Your task to perform on an android device: change timer sound Image 0: 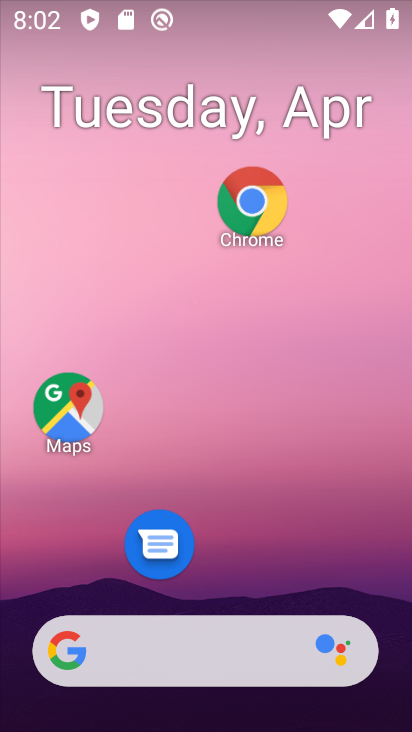
Step 0: drag from (227, 524) to (320, 84)
Your task to perform on an android device: change timer sound Image 1: 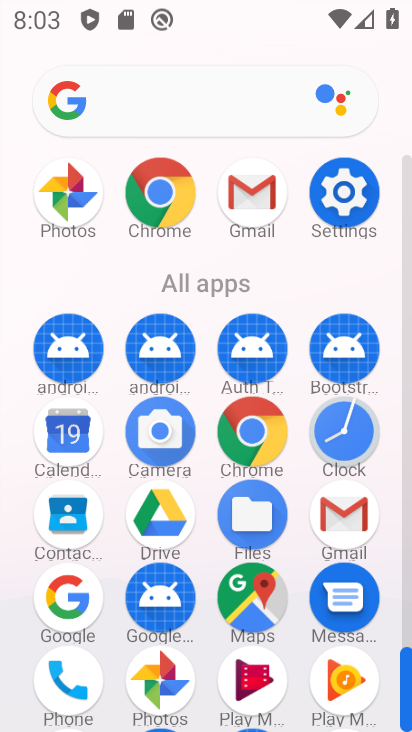
Step 1: click (354, 450)
Your task to perform on an android device: change timer sound Image 2: 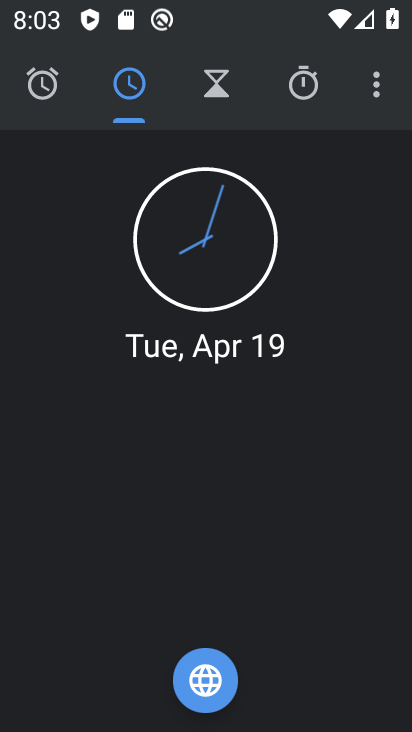
Step 2: click (381, 82)
Your task to perform on an android device: change timer sound Image 3: 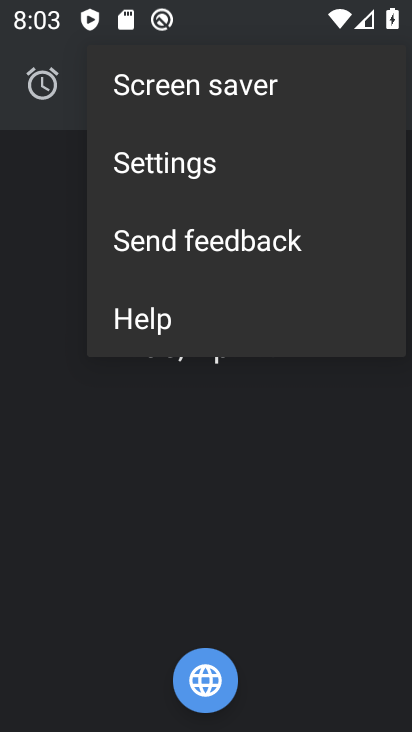
Step 3: click (182, 168)
Your task to perform on an android device: change timer sound Image 4: 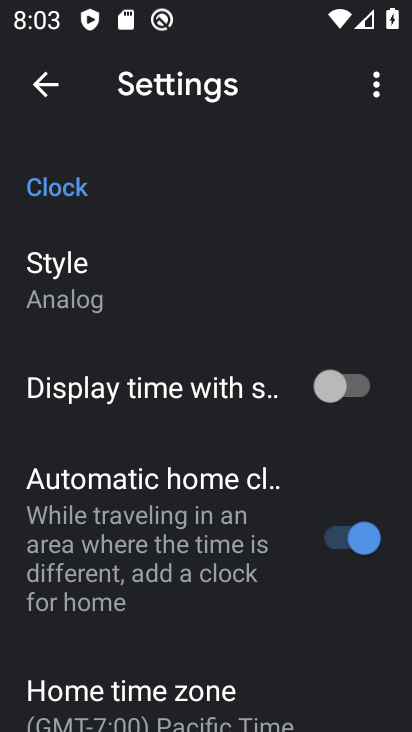
Step 4: drag from (165, 623) to (301, 103)
Your task to perform on an android device: change timer sound Image 5: 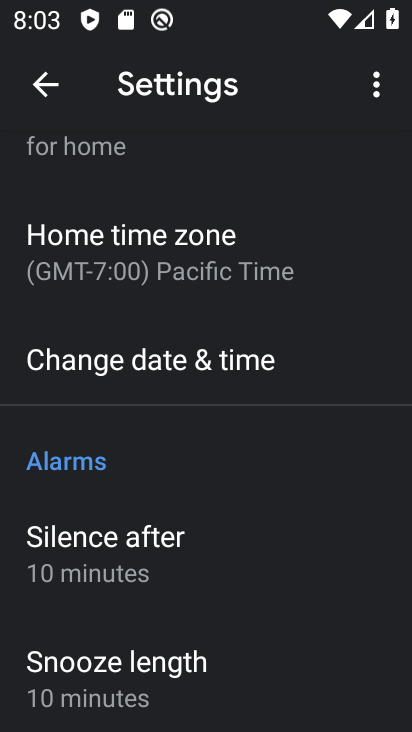
Step 5: drag from (147, 645) to (277, 183)
Your task to perform on an android device: change timer sound Image 6: 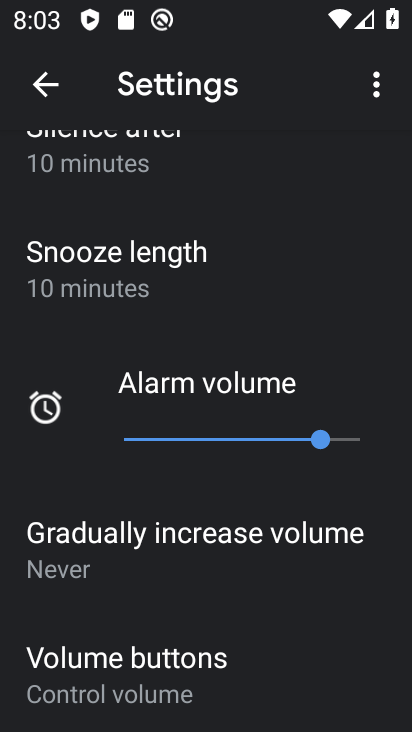
Step 6: drag from (196, 626) to (296, 299)
Your task to perform on an android device: change timer sound Image 7: 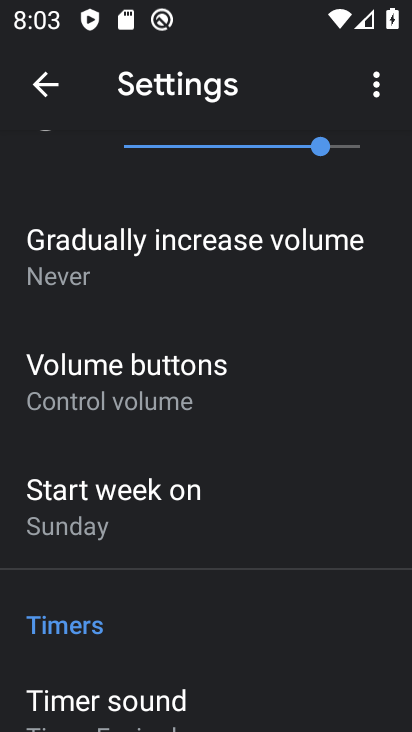
Step 7: drag from (225, 597) to (303, 279)
Your task to perform on an android device: change timer sound Image 8: 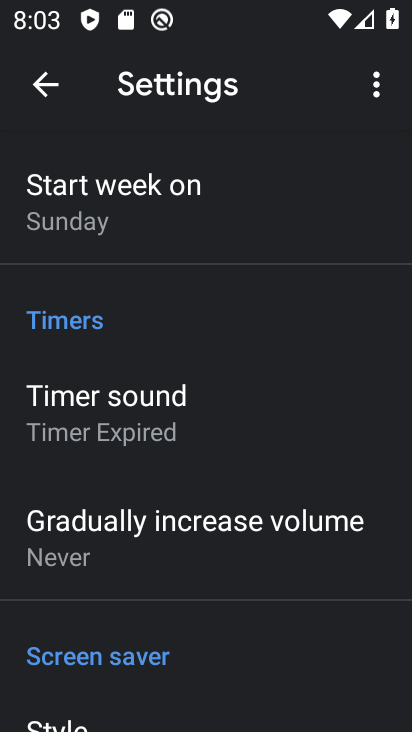
Step 8: click (129, 419)
Your task to perform on an android device: change timer sound Image 9: 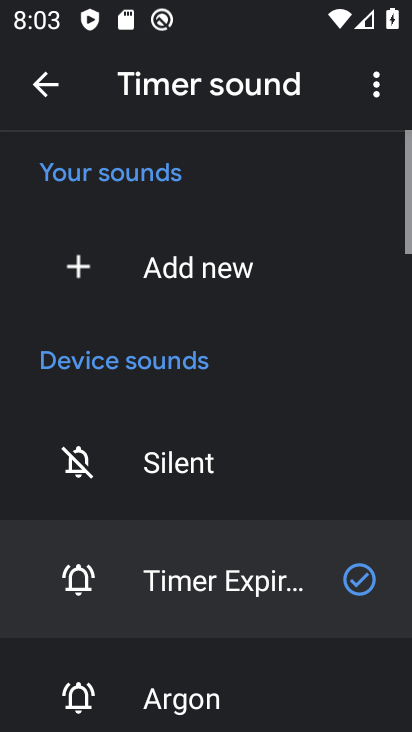
Step 9: drag from (159, 673) to (281, 296)
Your task to perform on an android device: change timer sound Image 10: 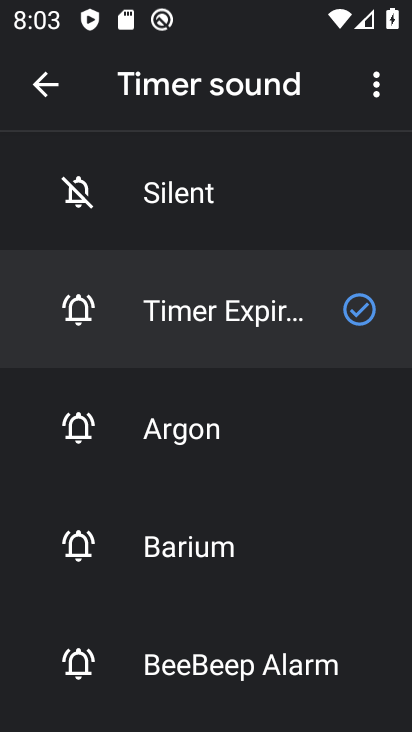
Step 10: click (196, 432)
Your task to perform on an android device: change timer sound Image 11: 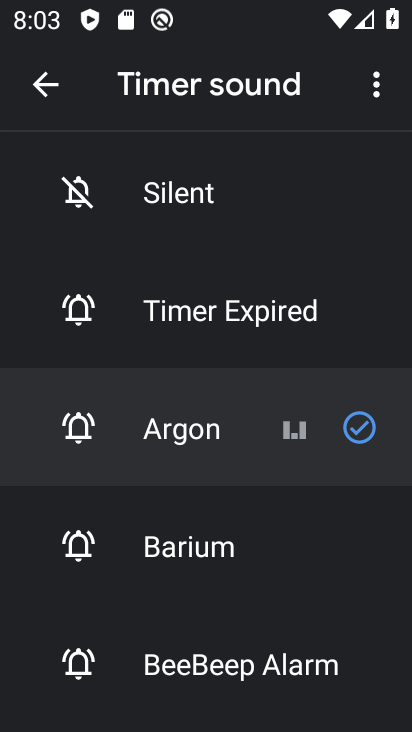
Step 11: task complete